Your task to perform on an android device: toggle pop-ups in chrome Image 0: 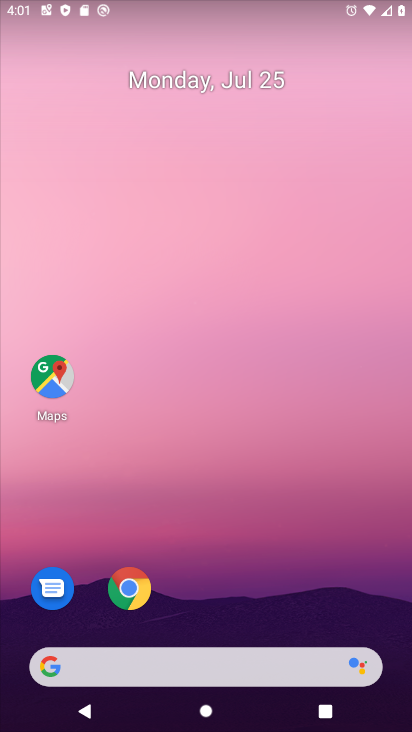
Step 0: drag from (227, 720) to (231, 213)
Your task to perform on an android device: toggle pop-ups in chrome Image 1: 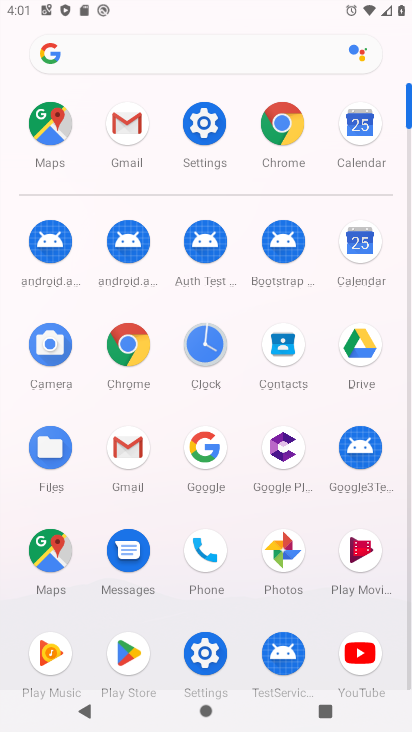
Step 1: click (280, 127)
Your task to perform on an android device: toggle pop-ups in chrome Image 2: 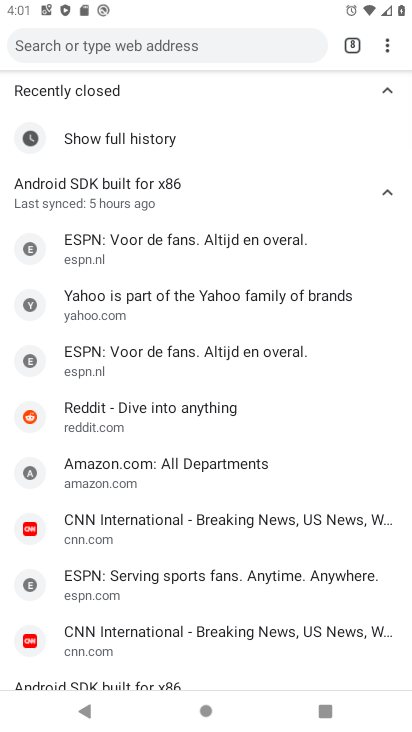
Step 2: click (383, 49)
Your task to perform on an android device: toggle pop-ups in chrome Image 3: 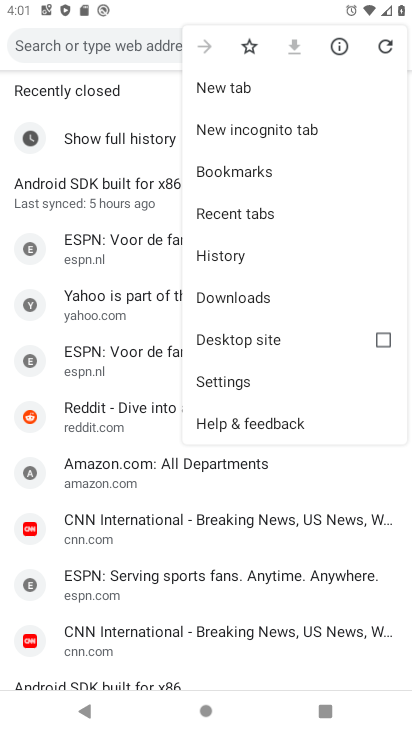
Step 3: click (233, 379)
Your task to perform on an android device: toggle pop-ups in chrome Image 4: 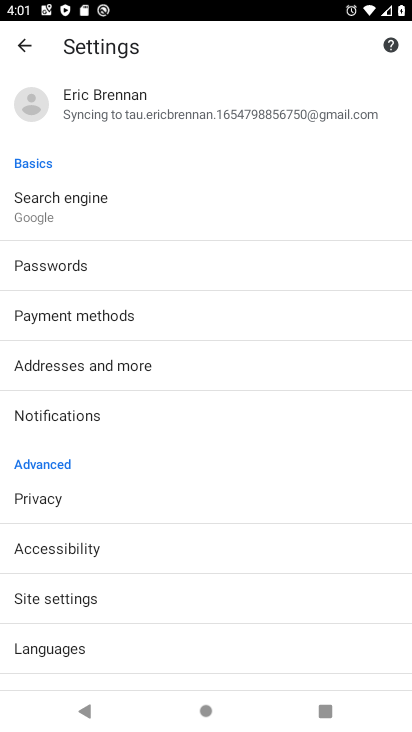
Step 4: click (47, 591)
Your task to perform on an android device: toggle pop-ups in chrome Image 5: 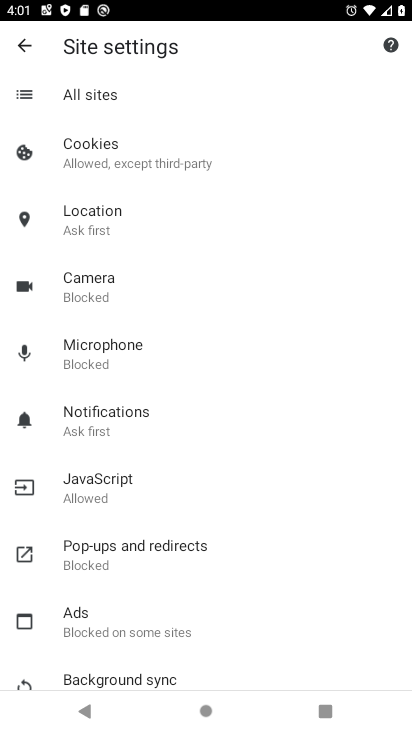
Step 5: click (85, 556)
Your task to perform on an android device: toggle pop-ups in chrome Image 6: 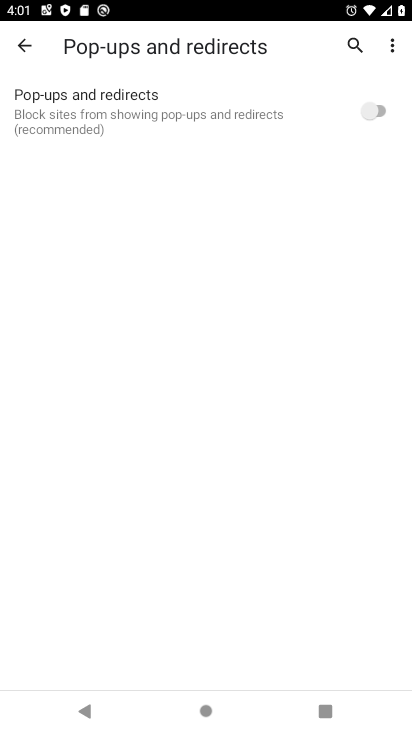
Step 6: click (380, 110)
Your task to perform on an android device: toggle pop-ups in chrome Image 7: 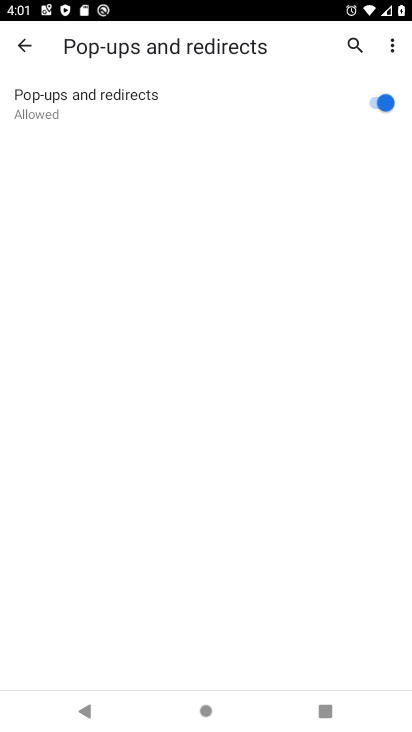
Step 7: task complete